Your task to perform on an android device: toggle sleep mode Image 0: 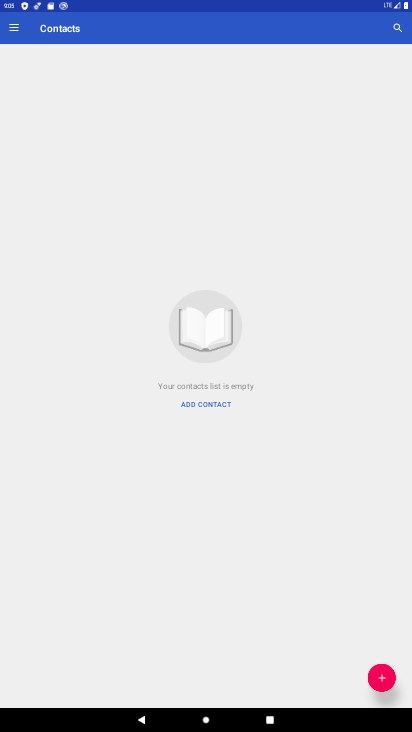
Step 0: press home button
Your task to perform on an android device: toggle sleep mode Image 1: 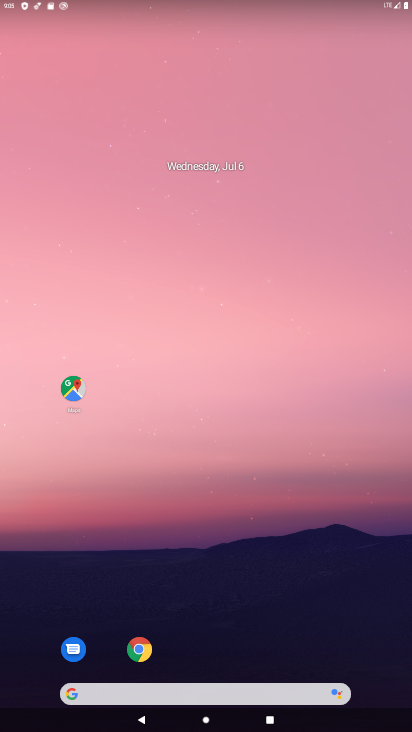
Step 1: drag from (199, 666) to (339, 2)
Your task to perform on an android device: toggle sleep mode Image 2: 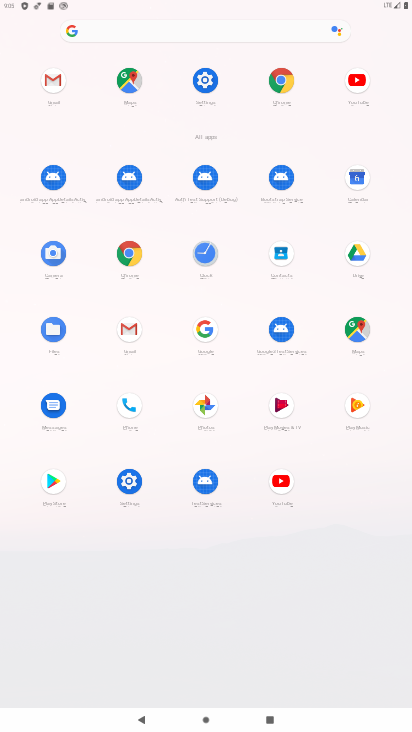
Step 2: click (205, 80)
Your task to perform on an android device: toggle sleep mode Image 3: 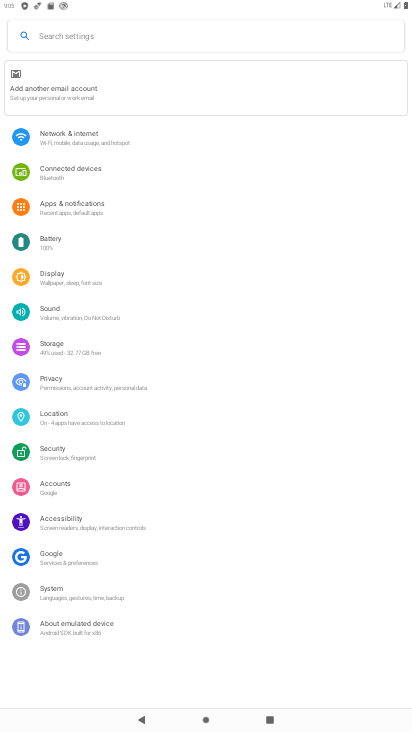
Step 3: click (63, 286)
Your task to perform on an android device: toggle sleep mode Image 4: 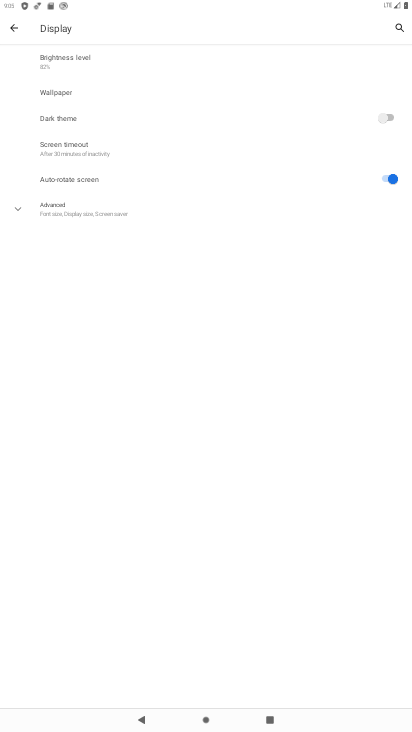
Step 4: task complete